Your task to perform on an android device: turn notification dots off Image 0: 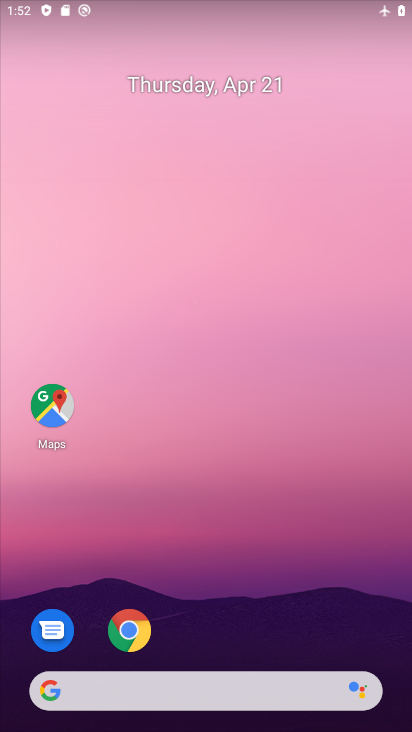
Step 0: drag from (350, 633) to (329, 20)
Your task to perform on an android device: turn notification dots off Image 1: 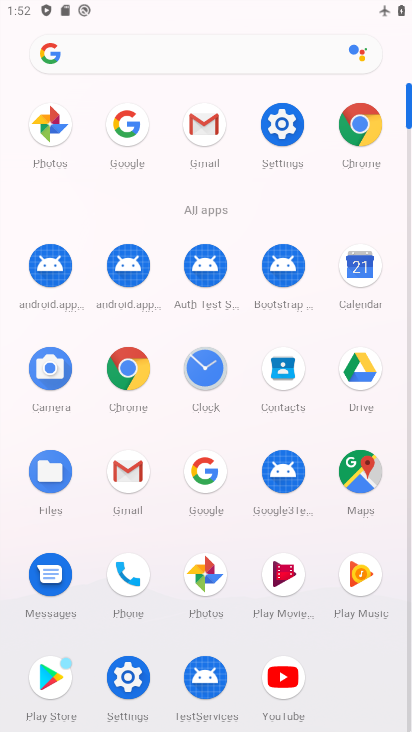
Step 1: click (285, 132)
Your task to perform on an android device: turn notification dots off Image 2: 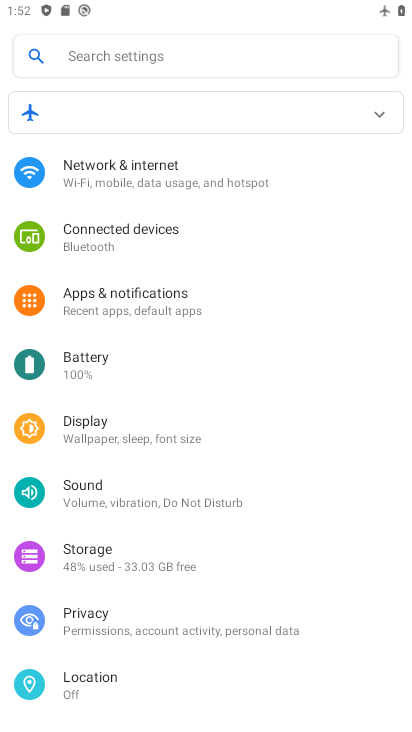
Step 2: click (137, 313)
Your task to perform on an android device: turn notification dots off Image 3: 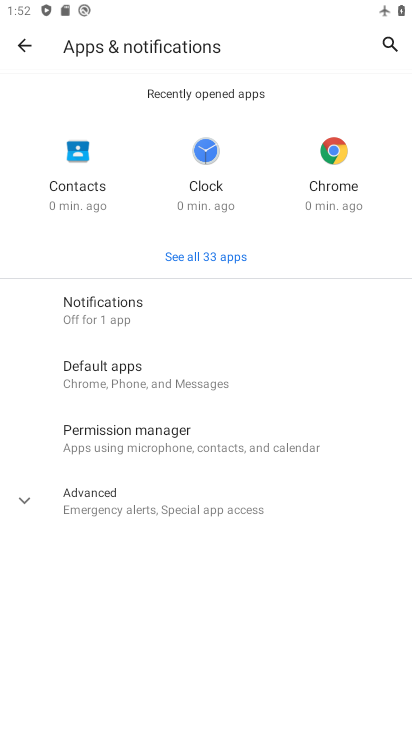
Step 3: click (24, 508)
Your task to perform on an android device: turn notification dots off Image 4: 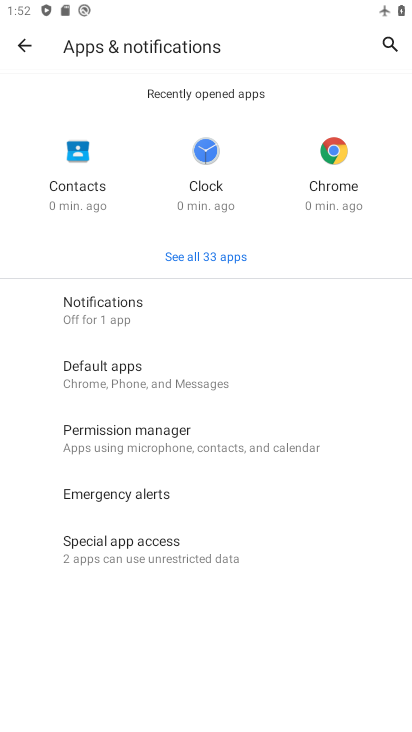
Step 4: click (106, 309)
Your task to perform on an android device: turn notification dots off Image 5: 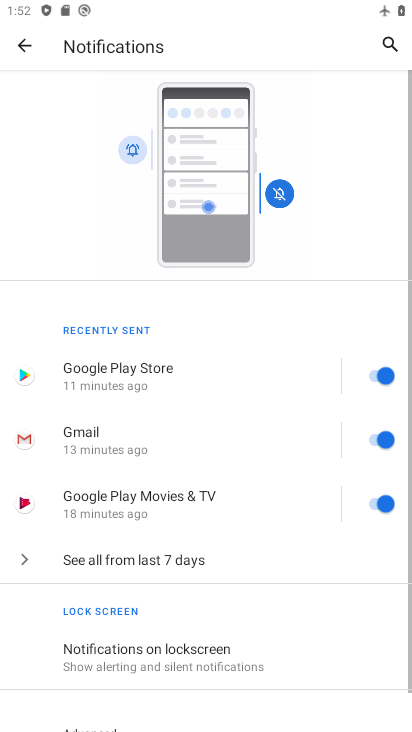
Step 5: drag from (183, 567) to (165, 175)
Your task to perform on an android device: turn notification dots off Image 6: 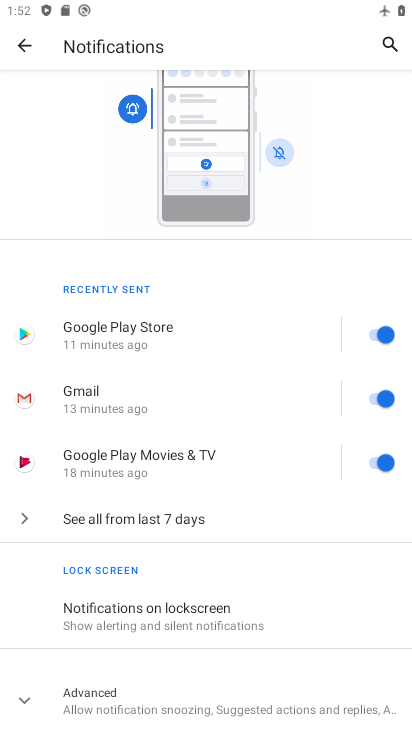
Step 6: click (27, 706)
Your task to perform on an android device: turn notification dots off Image 7: 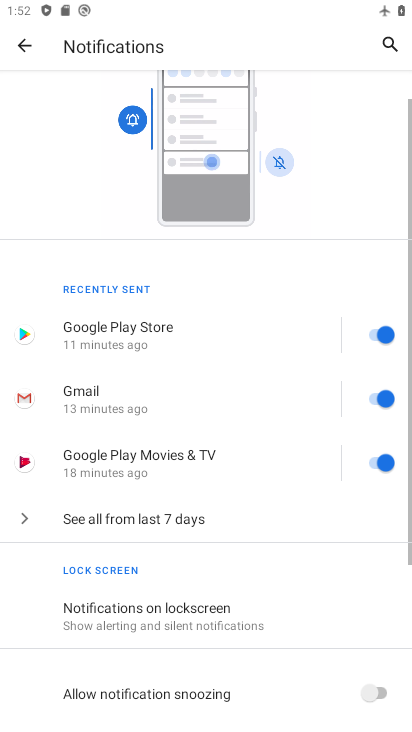
Step 7: drag from (149, 674) to (155, 164)
Your task to perform on an android device: turn notification dots off Image 8: 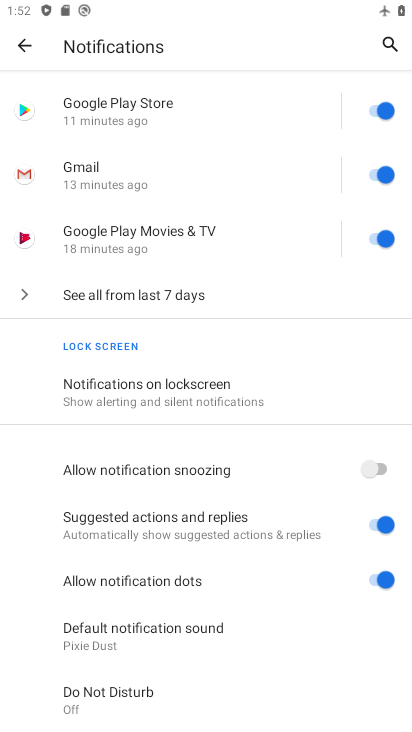
Step 8: click (391, 580)
Your task to perform on an android device: turn notification dots off Image 9: 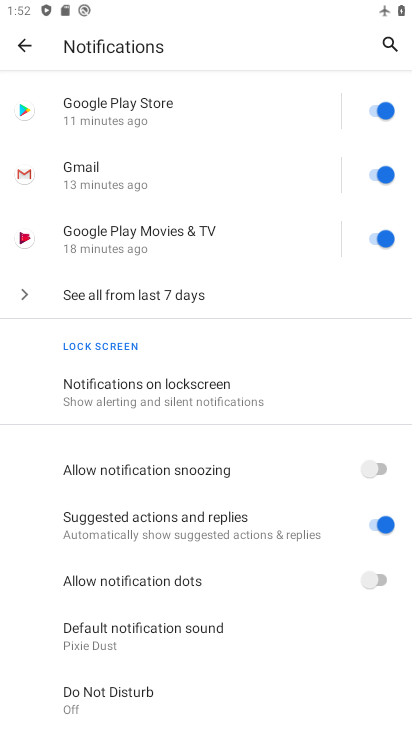
Step 9: task complete